Your task to perform on an android device: Open wifi settings Image 0: 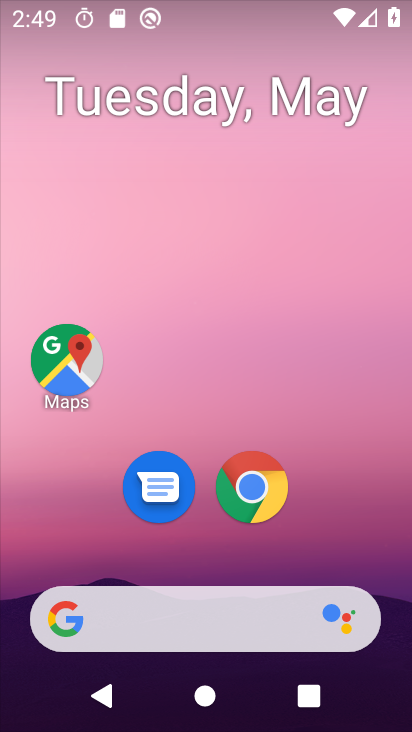
Step 0: drag from (389, 593) to (371, 302)
Your task to perform on an android device: Open wifi settings Image 1: 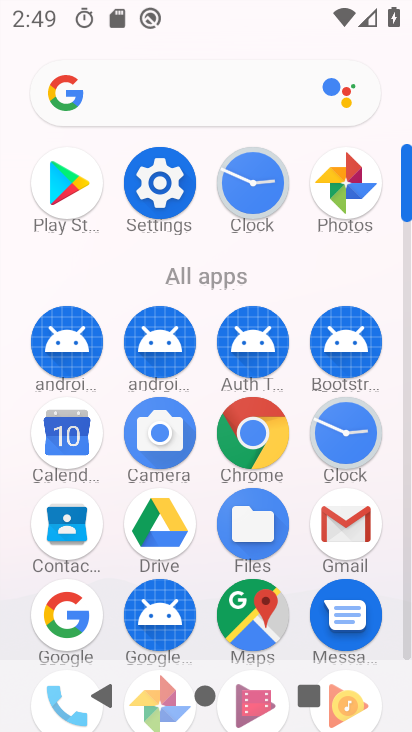
Step 1: click (371, 522)
Your task to perform on an android device: Open wifi settings Image 2: 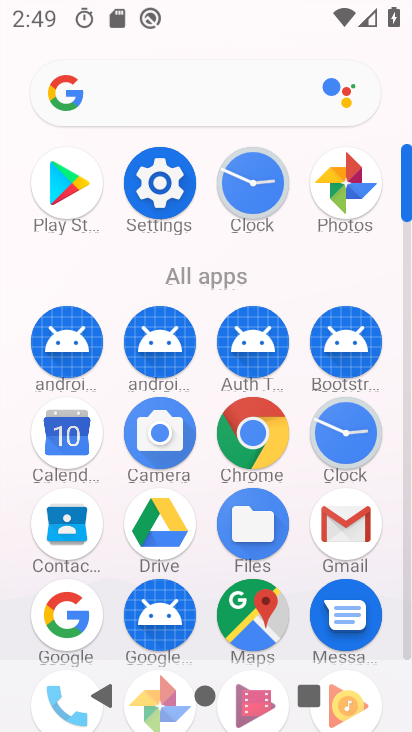
Step 2: click (169, 197)
Your task to perform on an android device: Open wifi settings Image 3: 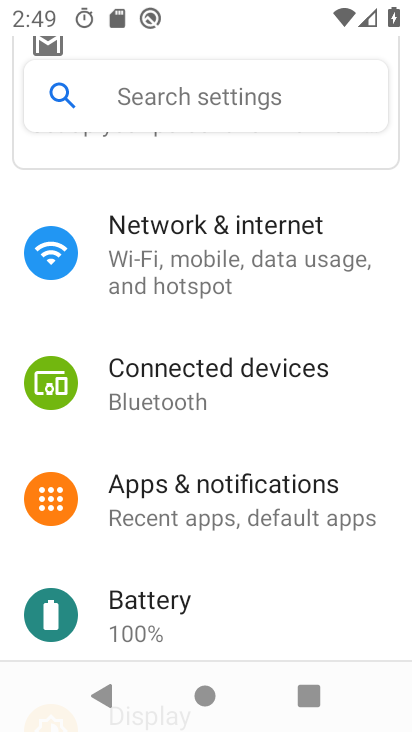
Step 3: click (191, 252)
Your task to perform on an android device: Open wifi settings Image 4: 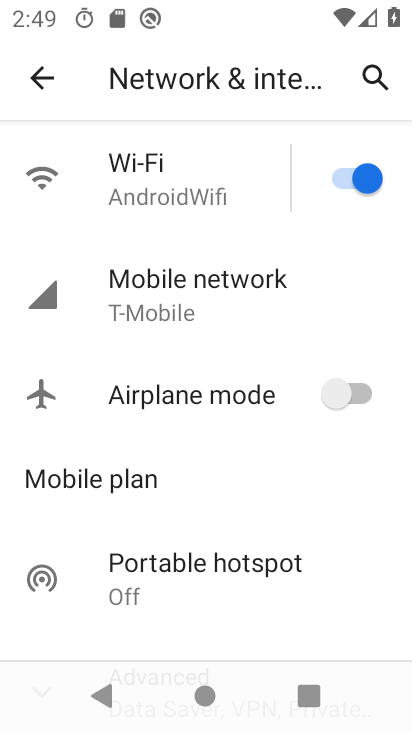
Step 4: click (186, 182)
Your task to perform on an android device: Open wifi settings Image 5: 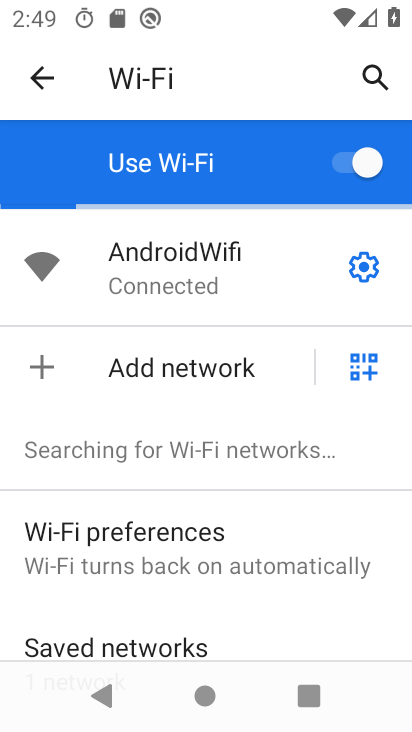
Step 5: click (361, 263)
Your task to perform on an android device: Open wifi settings Image 6: 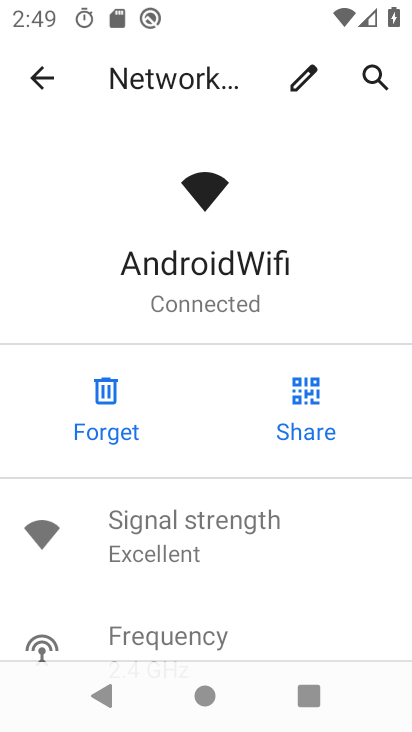
Step 6: task complete